Your task to perform on an android device: turn on notifications settings in the gmail app Image 0: 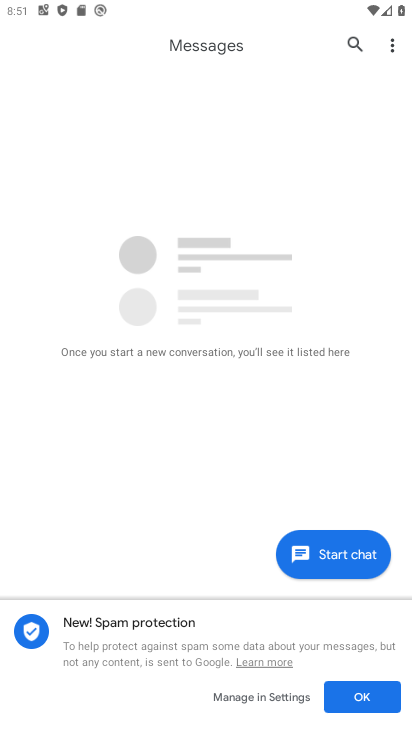
Step 0: press home button
Your task to perform on an android device: turn on notifications settings in the gmail app Image 1: 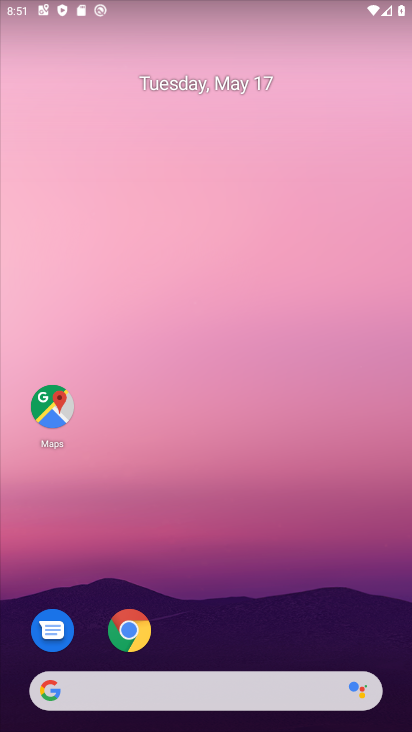
Step 1: drag from (197, 631) to (44, 96)
Your task to perform on an android device: turn on notifications settings in the gmail app Image 2: 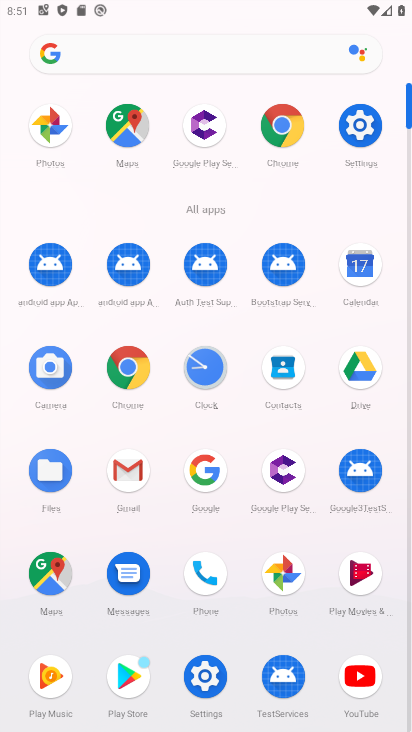
Step 2: click (129, 471)
Your task to perform on an android device: turn on notifications settings in the gmail app Image 3: 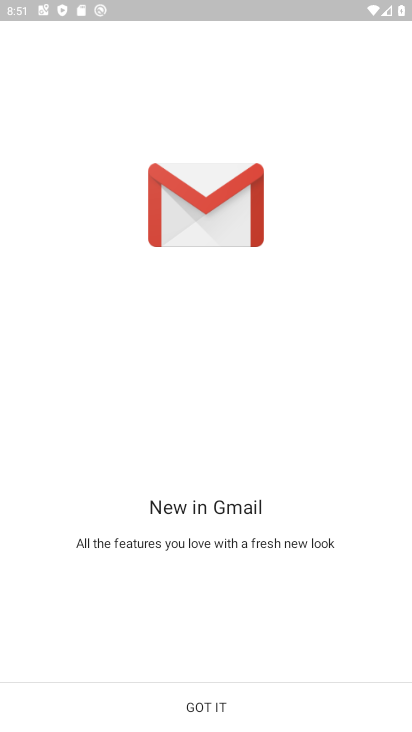
Step 3: click (221, 711)
Your task to perform on an android device: turn on notifications settings in the gmail app Image 4: 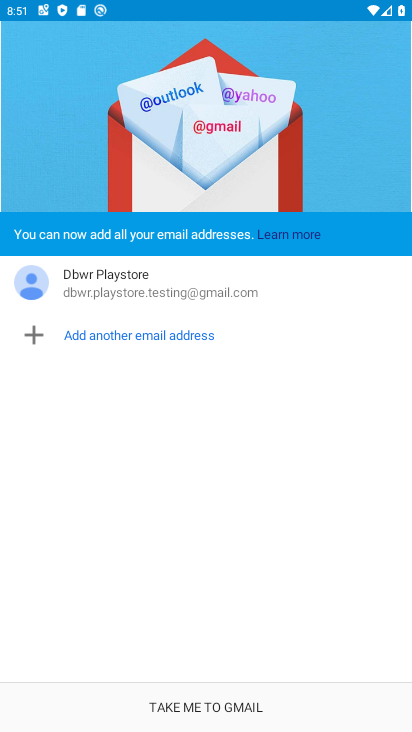
Step 4: click (215, 708)
Your task to perform on an android device: turn on notifications settings in the gmail app Image 5: 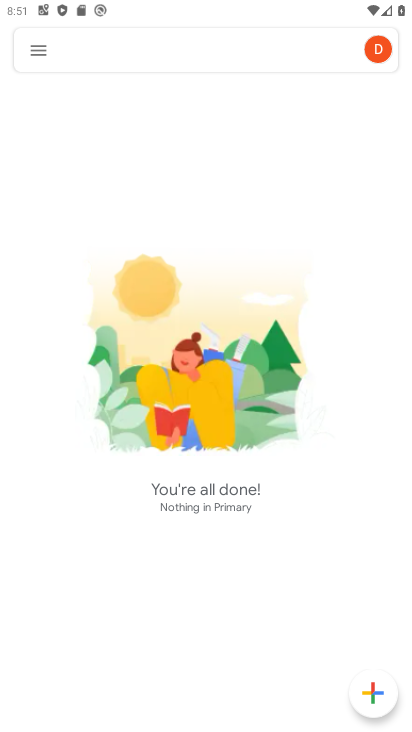
Step 5: click (30, 51)
Your task to perform on an android device: turn on notifications settings in the gmail app Image 6: 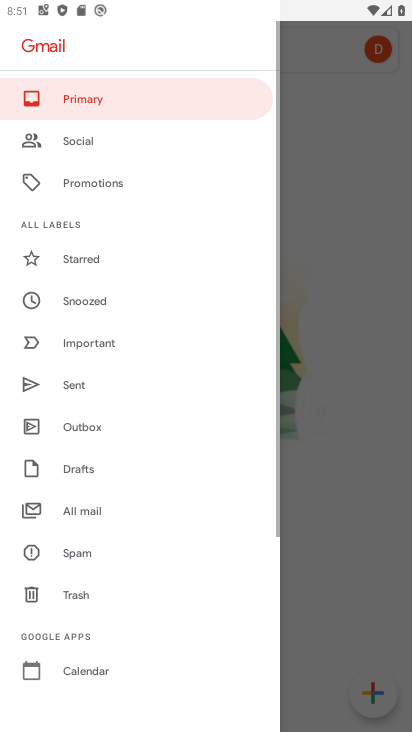
Step 6: drag from (103, 679) to (121, 507)
Your task to perform on an android device: turn on notifications settings in the gmail app Image 7: 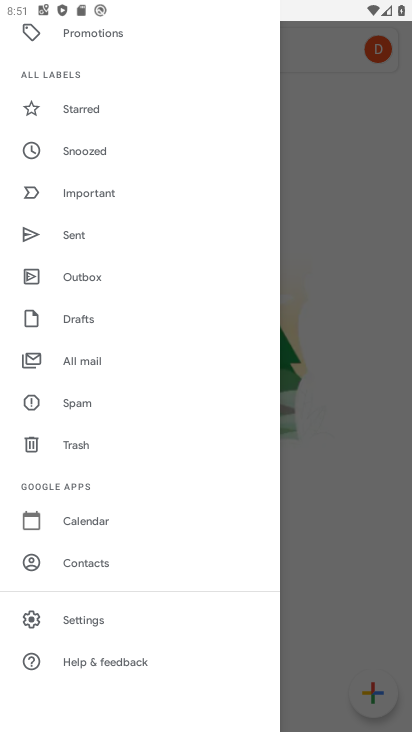
Step 7: click (72, 616)
Your task to perform on an android device: turn on notifications settings in the gmail app Image 8: 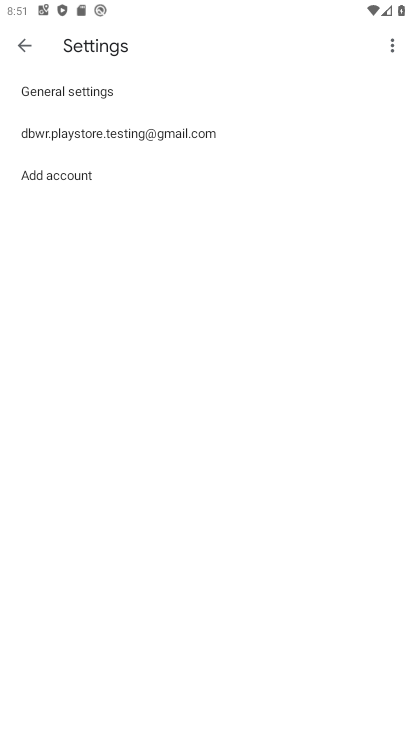
Step 8: click (151, 128)
Your task to perform on an android device: turn on notifications settings in the gmail app Image 9: 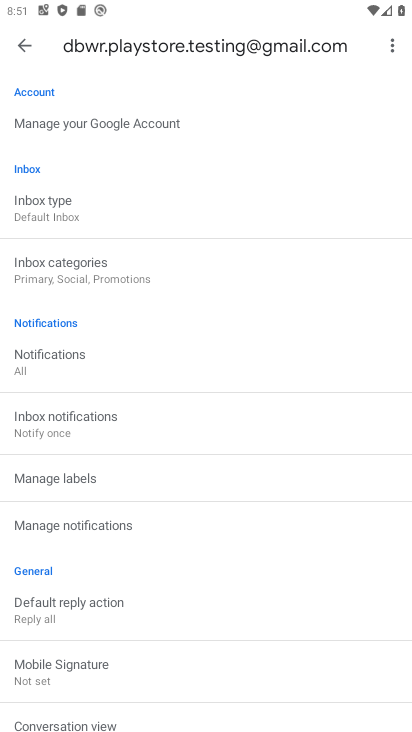
Step 9: click (62, 528)
Your task to perform on an android device: turn on notifications settings in the gmail app Image 10: 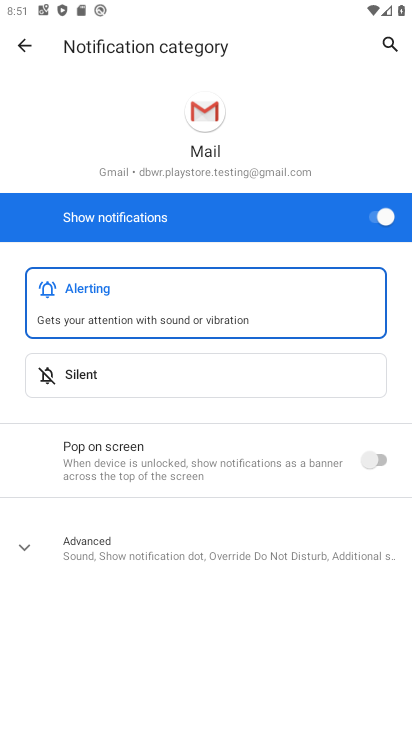
Step 10: task complete